Your task to perform on an android device: toggle show notifications on the lock screen Image 0: 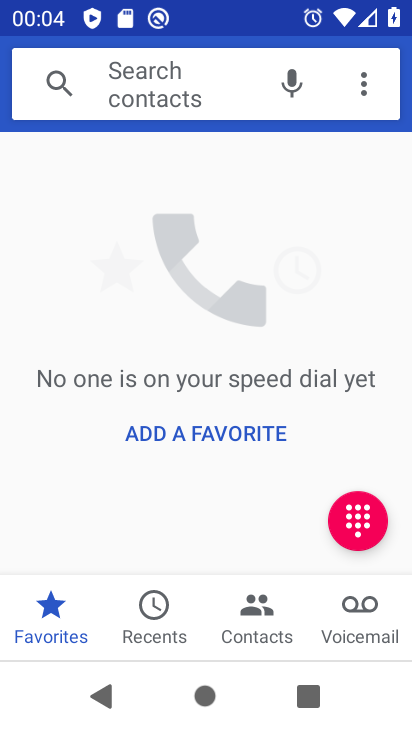
Step 0: press home button
Your task to perform on an android device: toggle show notifications on the lock screen Image 1: 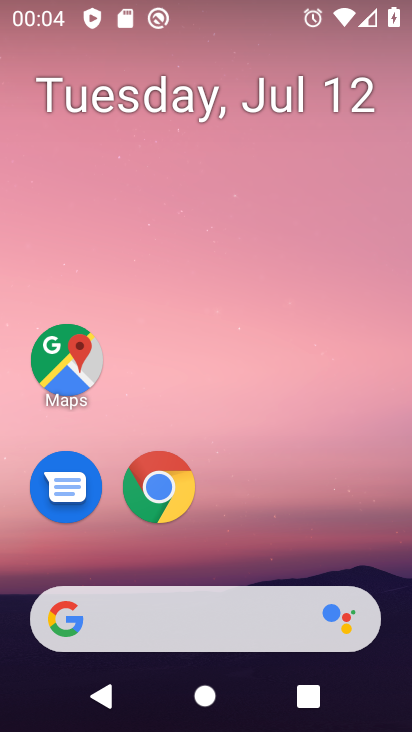
Step 1: drag from (368, 525) to (358, 133)
Your task to perform on an android device: toggle show notifications on the lock screen Image 2: 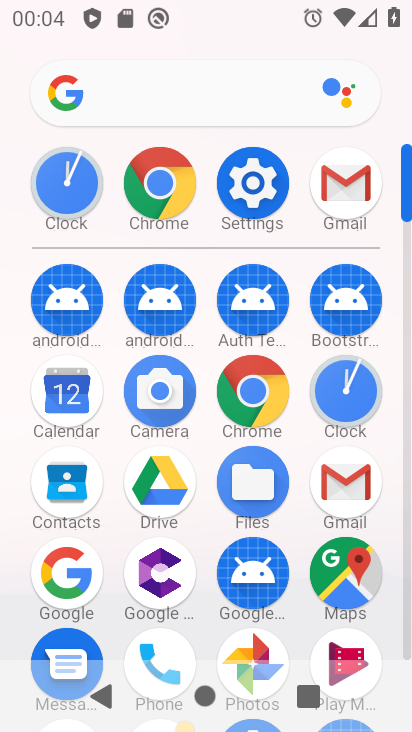
Step 2: click (269, 193)
Your task to perform on an android device: toggle show notifications on the lock screen Image 3: 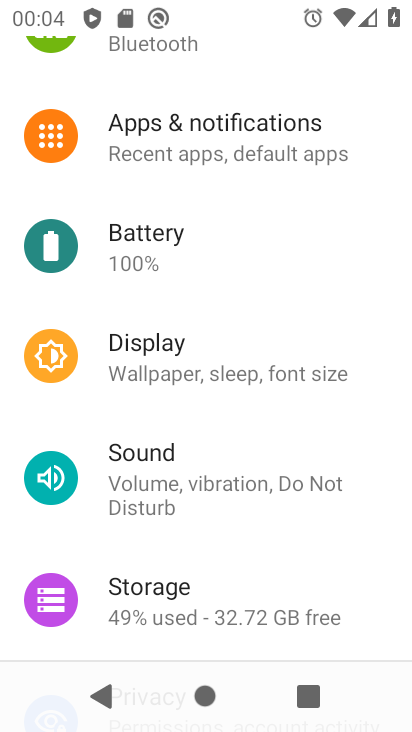
Step 3: drag from (324, 231) to (328, 283)
Your task to perform on an android device: toggle show notifications on the lock screen Image 4: 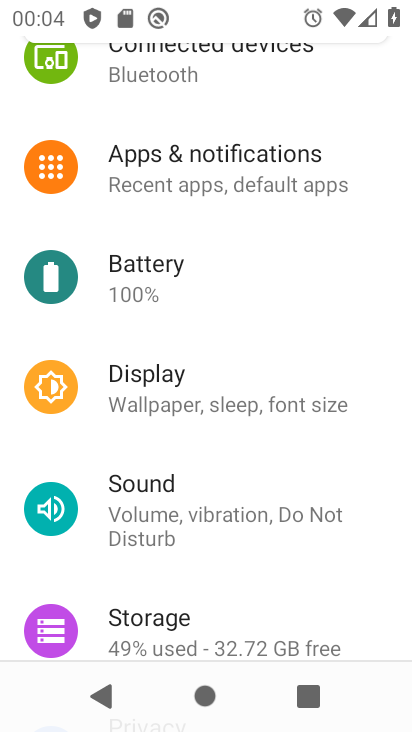
Step 4: drag from (321, 210) to (325, 246)
Your task to perform on an android device: toggle show notifications on the lock screen Image 5: 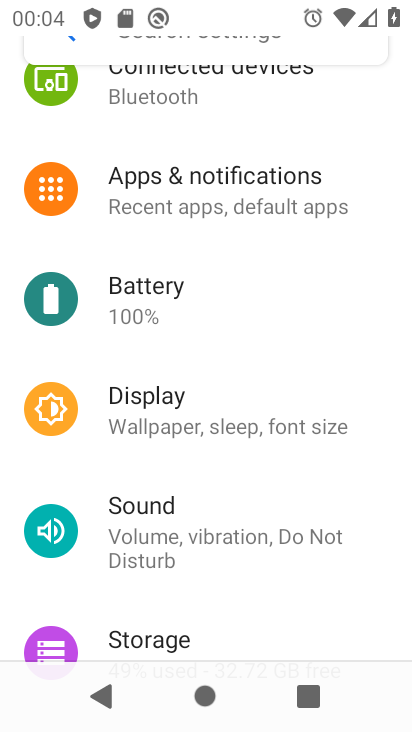
Step 5: drag from (314, 168) to (309, 374)
Your task to perform on an android device: toggle show notifications on the lock screen Image 6: 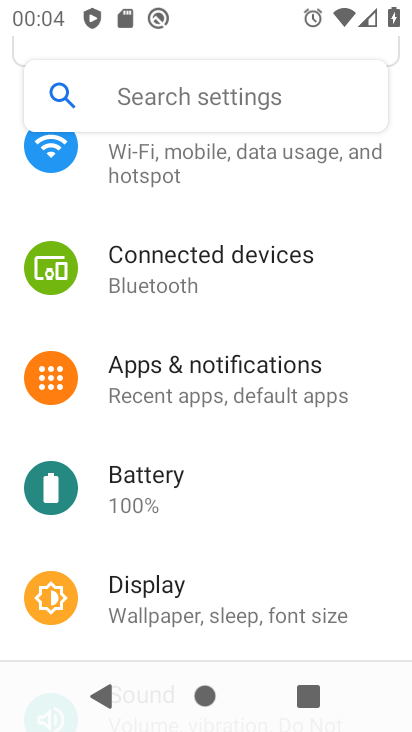
Step 6: click (216, 389)
Your task to perform on an android device: toggle show notifications on the lock screen Image 7: 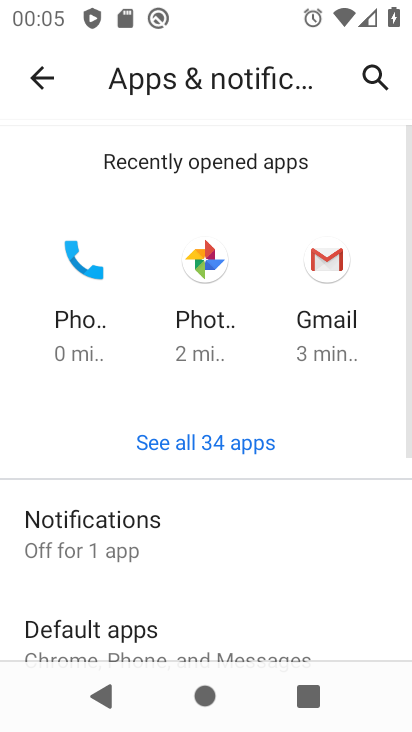
Step 7: click (198, 509)
Your task to perform on an android device: toggle show notifications on the lock screen Image 8: 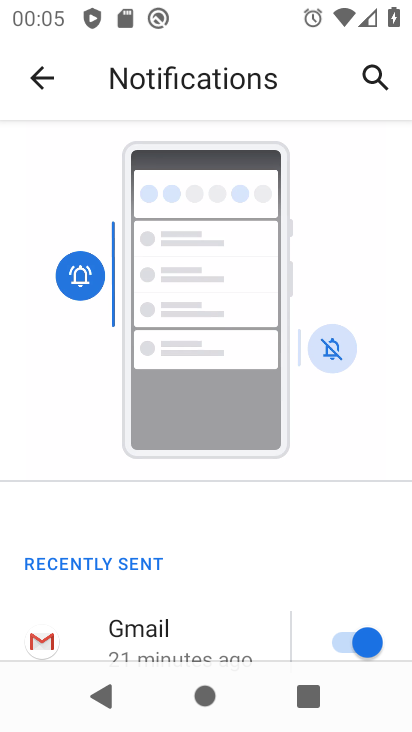
Step 8: drag from (251, 557) to (251, 478)
Your task to perform on an android device: toggle show notifications on the lock screen Image 9: 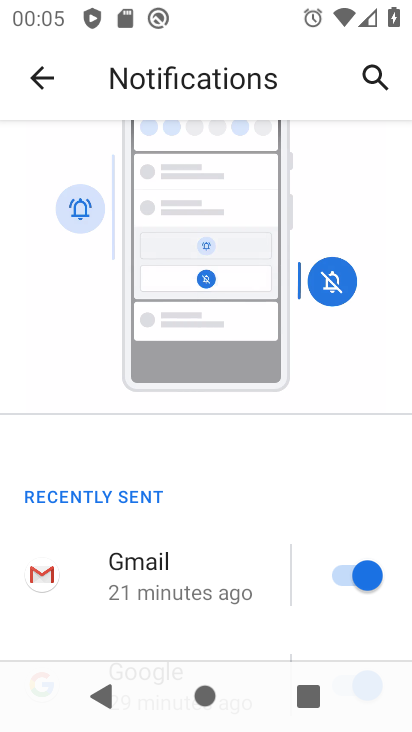
Step 9: drag from (261, 573) to (263, 478)
Your task to perform on an android device: toggle show notifications on the lock screen Image 10: 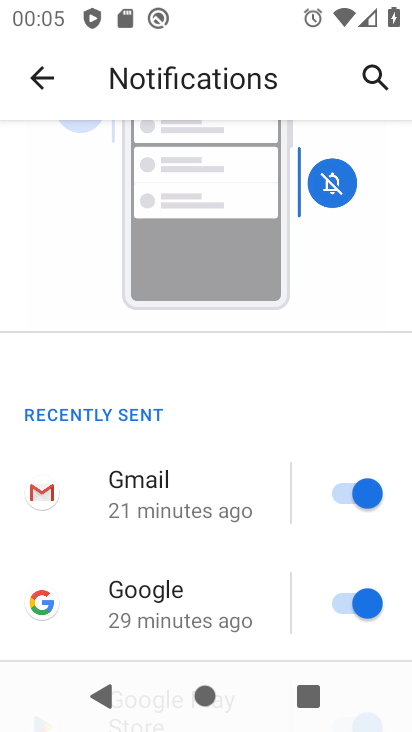
Step 10: drag from (262, 566) to (255, 475)
Your task to perform on an android device: toggle show notifications on the lock screen Image 11: 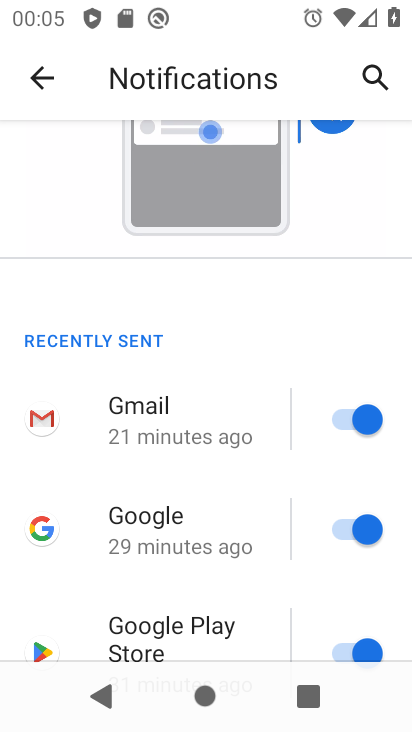
Step 11: drag from (257, 568) to (255, 496)
Your task to perform on an android device: toggle show notifications on the lock screen Image 12: 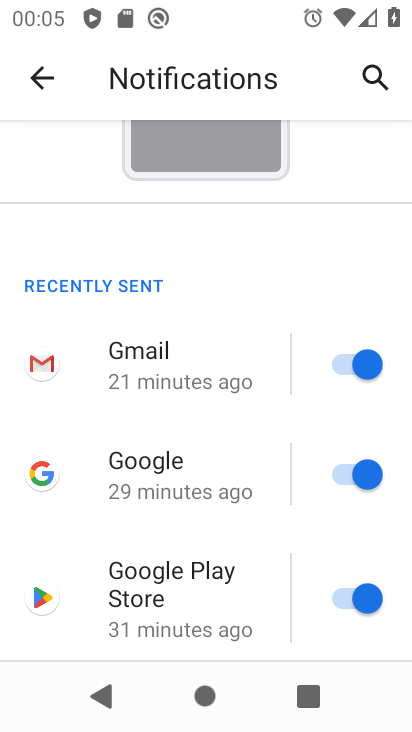
Step 12: drag from (266, 550) to (268, 515)
Your task to perform on an android device: toggle show notifications on the lock screen Image 13: 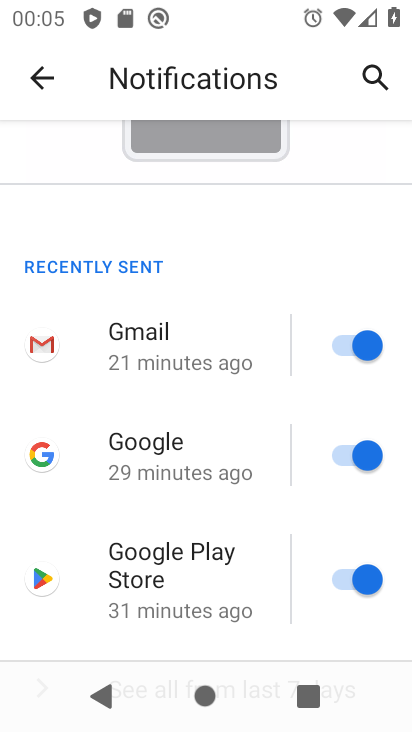
Step 13: drag from (268, 576) to (261, 450)
Your task to perform on an android device: toggle show notifications on the lock screen Image 14: 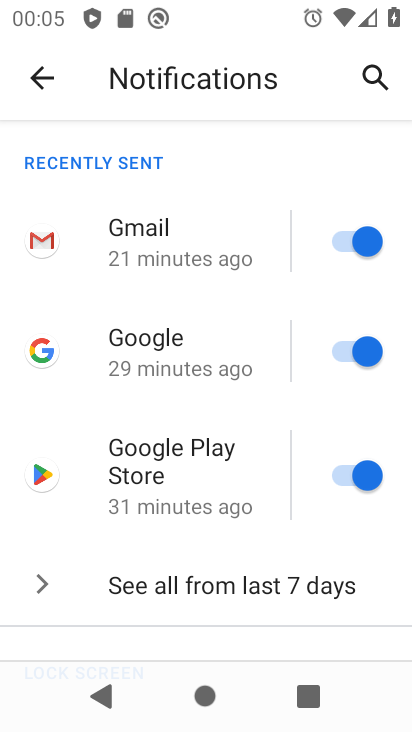
Step 14: drag from (261, 558) to (266, 478)
Your task to perform on an android device: toggle show notifications on the lock screen Image 15: 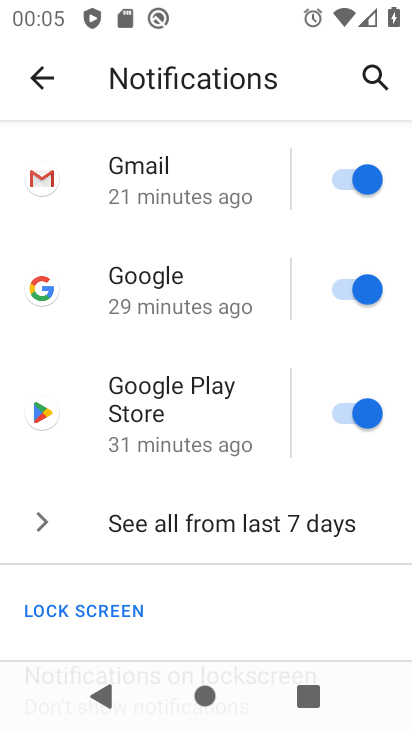
Step 15: drag from (284, 574) to (273, 444)
Your task to perform on an android device: toggle show notifications on the lock screen Image 16: 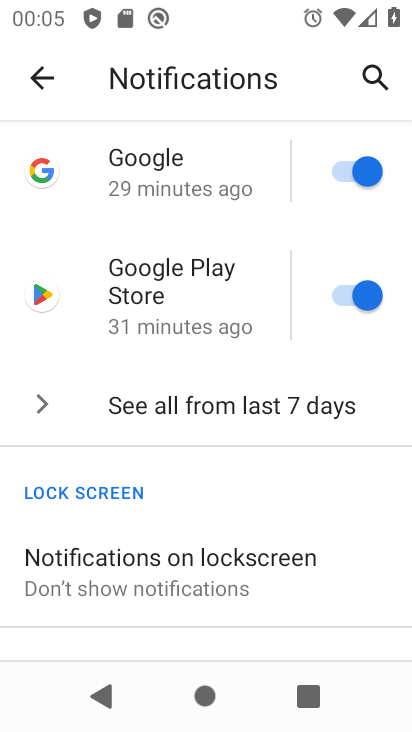
Step 16: click (273, 571)
Your task to perform on an android device: toggle show notifications on the lock screen Image 17: 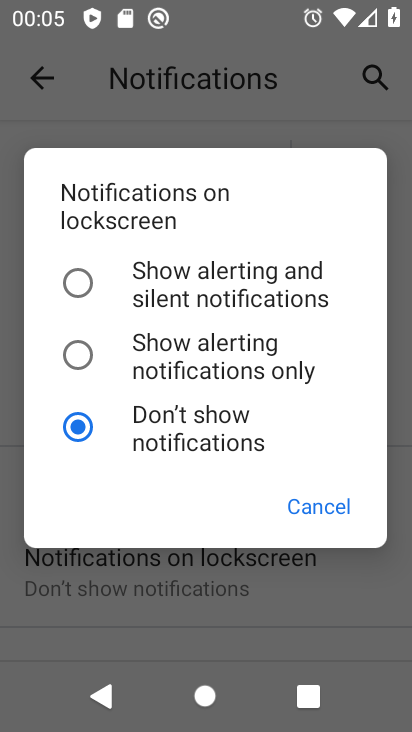
Step 17: click (91, 352)
Your task to perform on an android device: toggle show notifications on the lock screen Image 18: 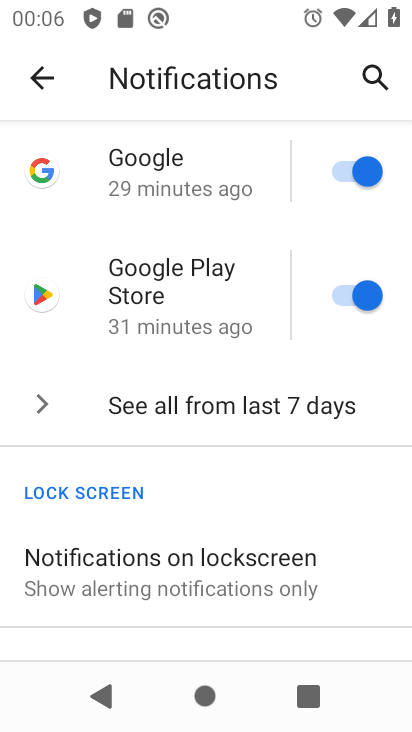
Step 18: click (223, 590)
Your task to perform on an android device: toggle show notifications on the lock screen Image 19: 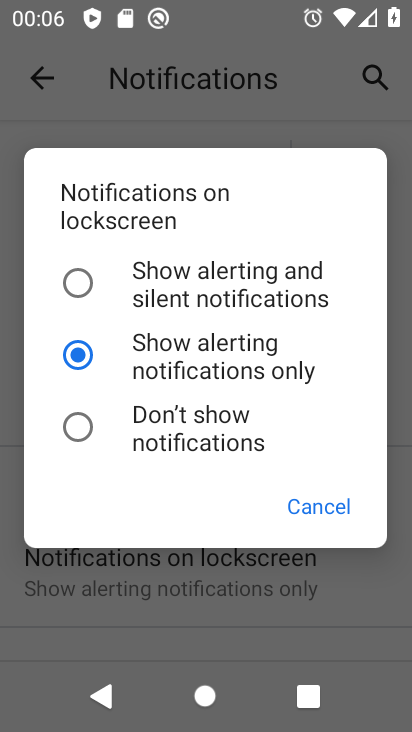
Step 19: task complete